Your task to perform on an android device: turn off picture-in-picture Image 0: 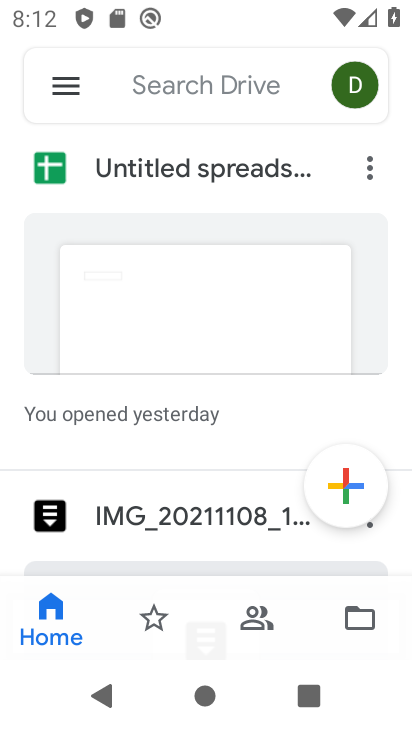
Step 0: press home button
Your task to perform on an android device: turn off picture-in-picture Image 1: 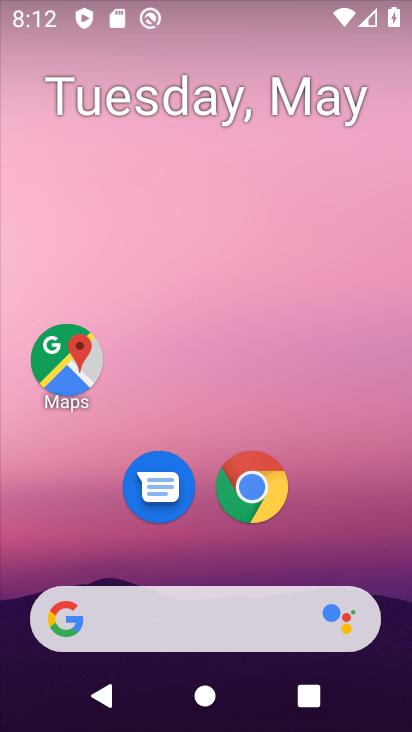
Step 1: click (261, 490)
Your task to perform on an android device: turn off picture-in-picture Image 2: 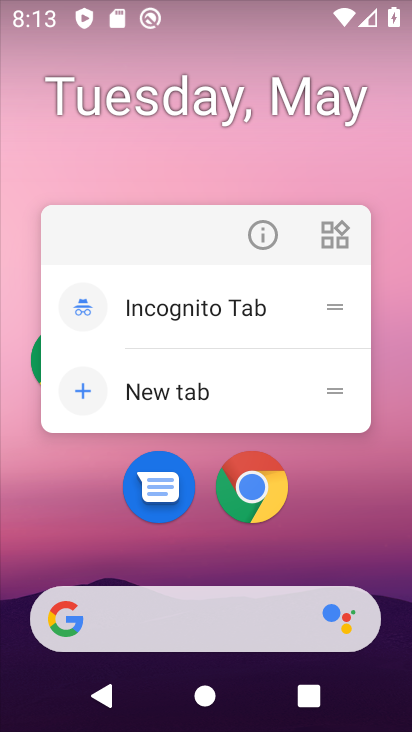
Step 2: click (264, 232)
Your task to perform on an android device: turn off picture-in-picture Image 3: 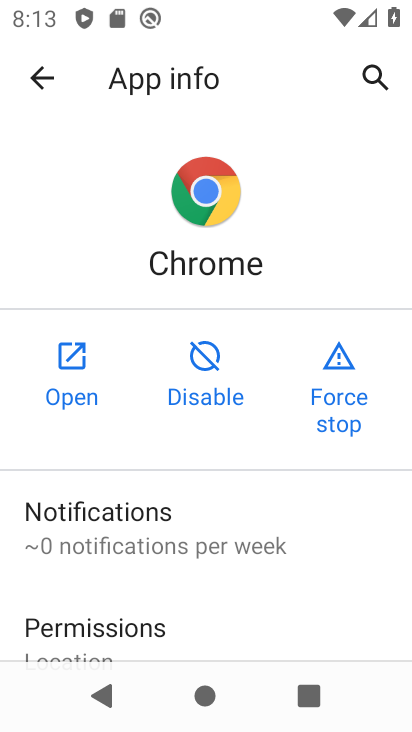
Step 3: drag from (243, 619) to (220, 191)
Your task to perform on an android device: turn off picture-in-picture Image 4: 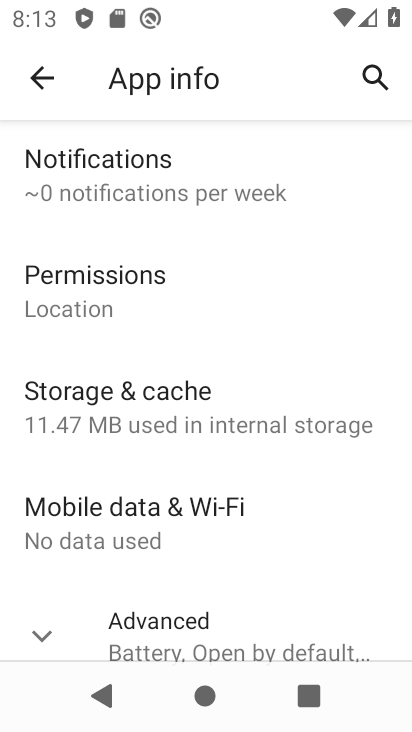
Step 4: click (135, 627)
Your task to perform on an android device: turn off picture-in-picture Image 5: 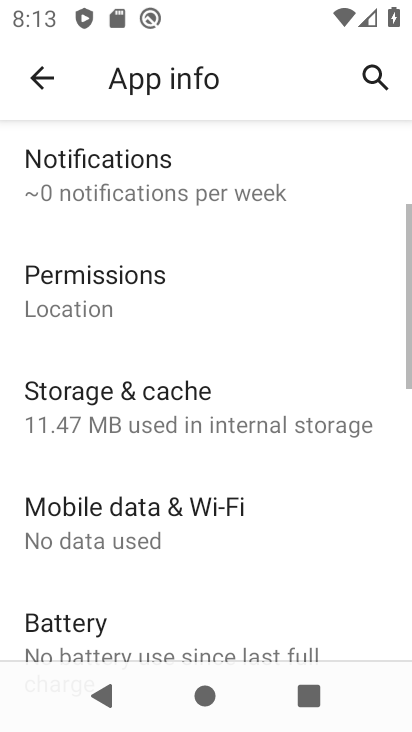
Step 5: drag from (292, 573) to (308, 180)
Your task to perform on an android device: turn off picture-in-picture Image 6: 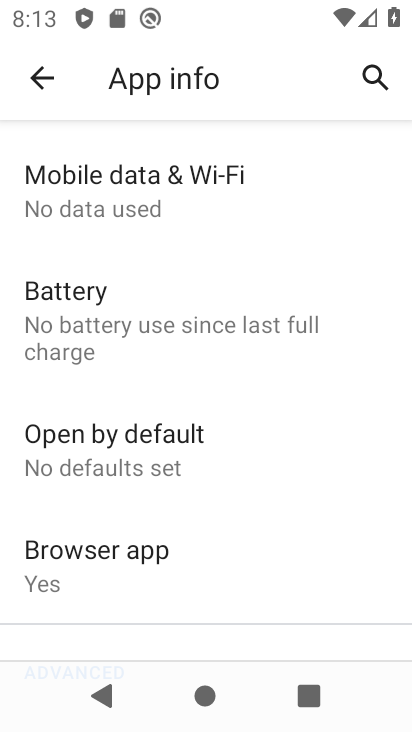
Step 6: drag from (245, 515) to (212, 175)
Your task to perform on an android device: turn off picture-in-picture Image 7: 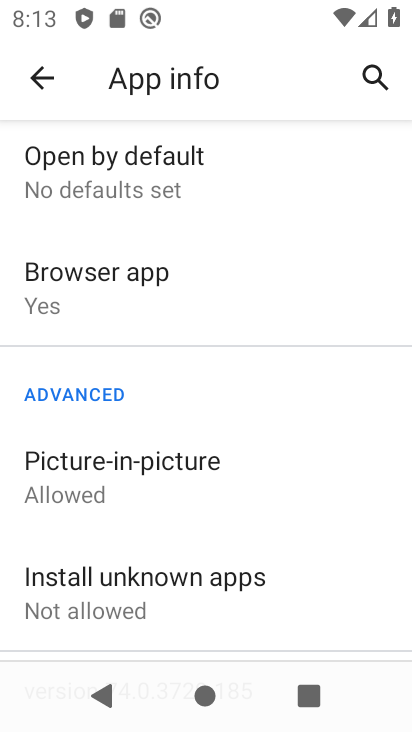
Step 7: click (84, 476)
Your task to perform on an android device: turn off picture-in-picture Image 8: 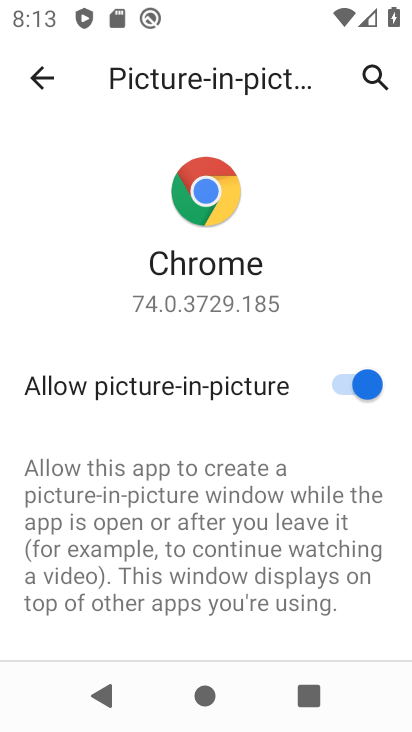
Step 8: click (345, 377)
Your task to perform on an android device: turn off picture-in-picture Image 9: 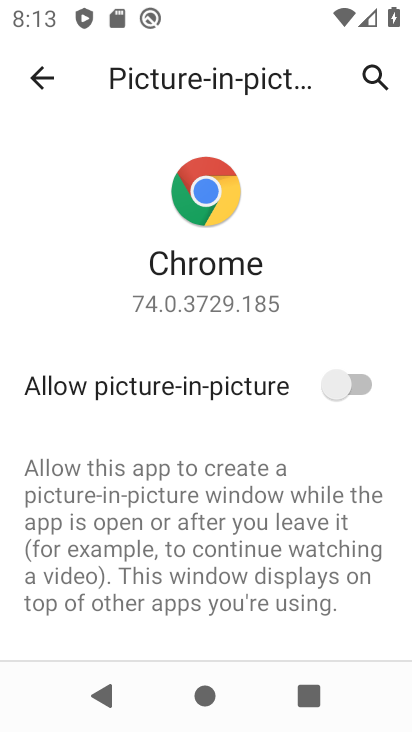
Step 9: task complete